Your task to perform on an android device: Play the last video I watched on Youtube Image 0: 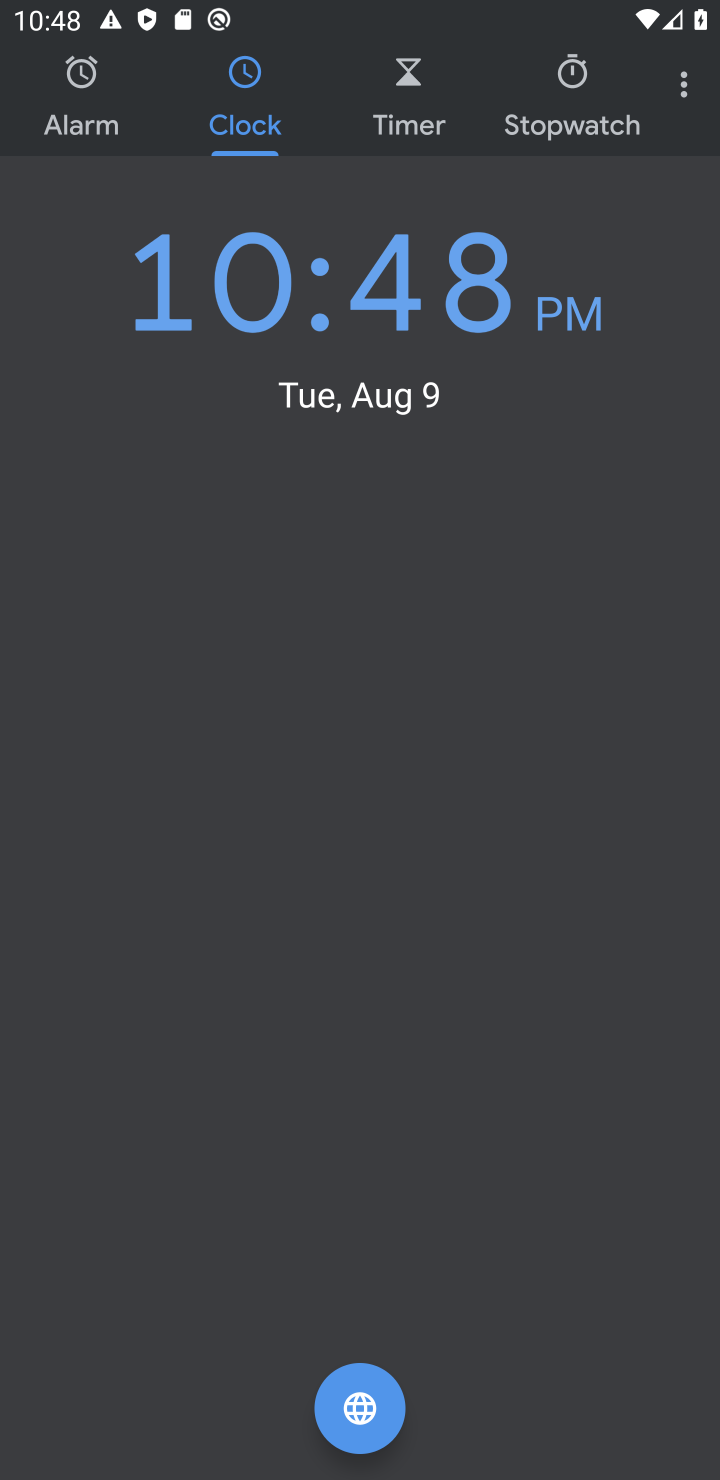
Step 0: press home button
Your task to perform on an android device: Play the last video I watched on Youtube Image 1: 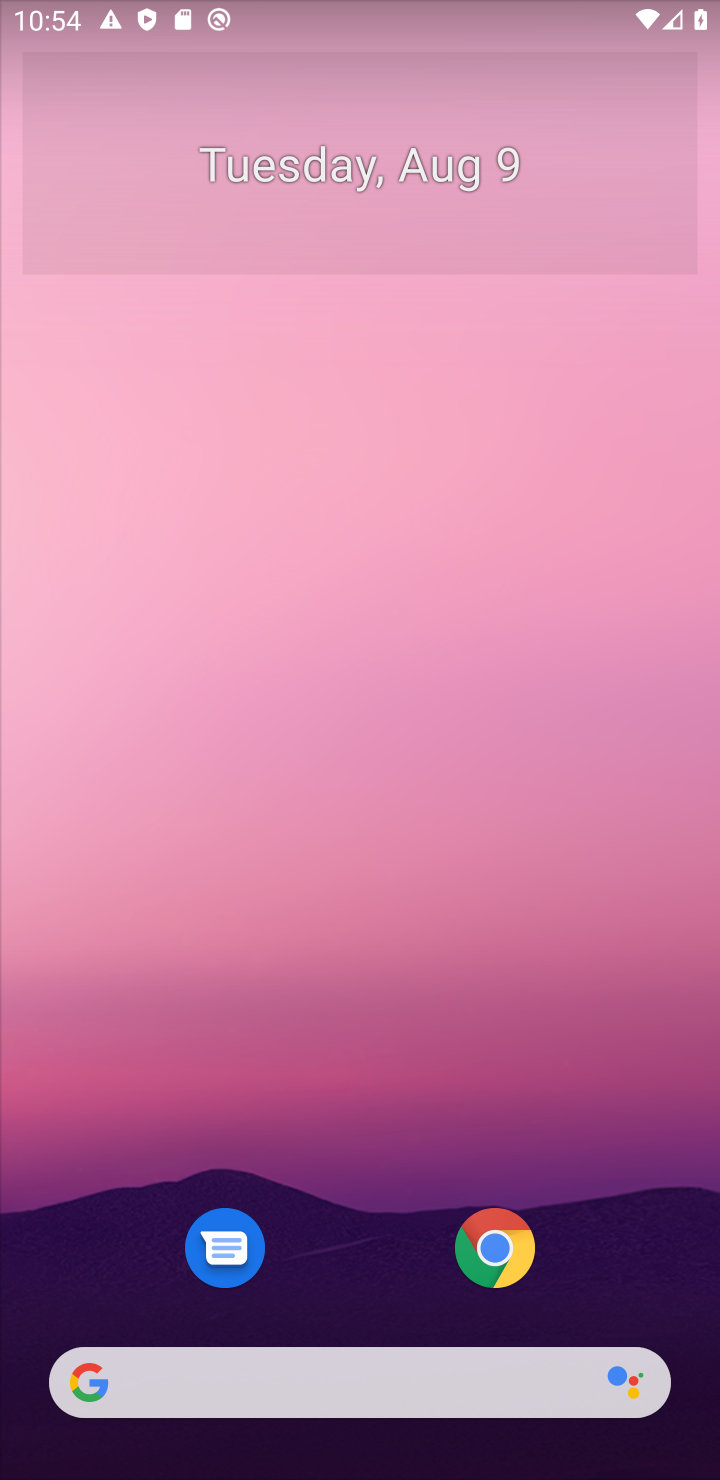
Step 1: drag from (421, 975) to (488, 16)
Your task to perform on an android device: Play the last video I watched on Youtube Image 2: 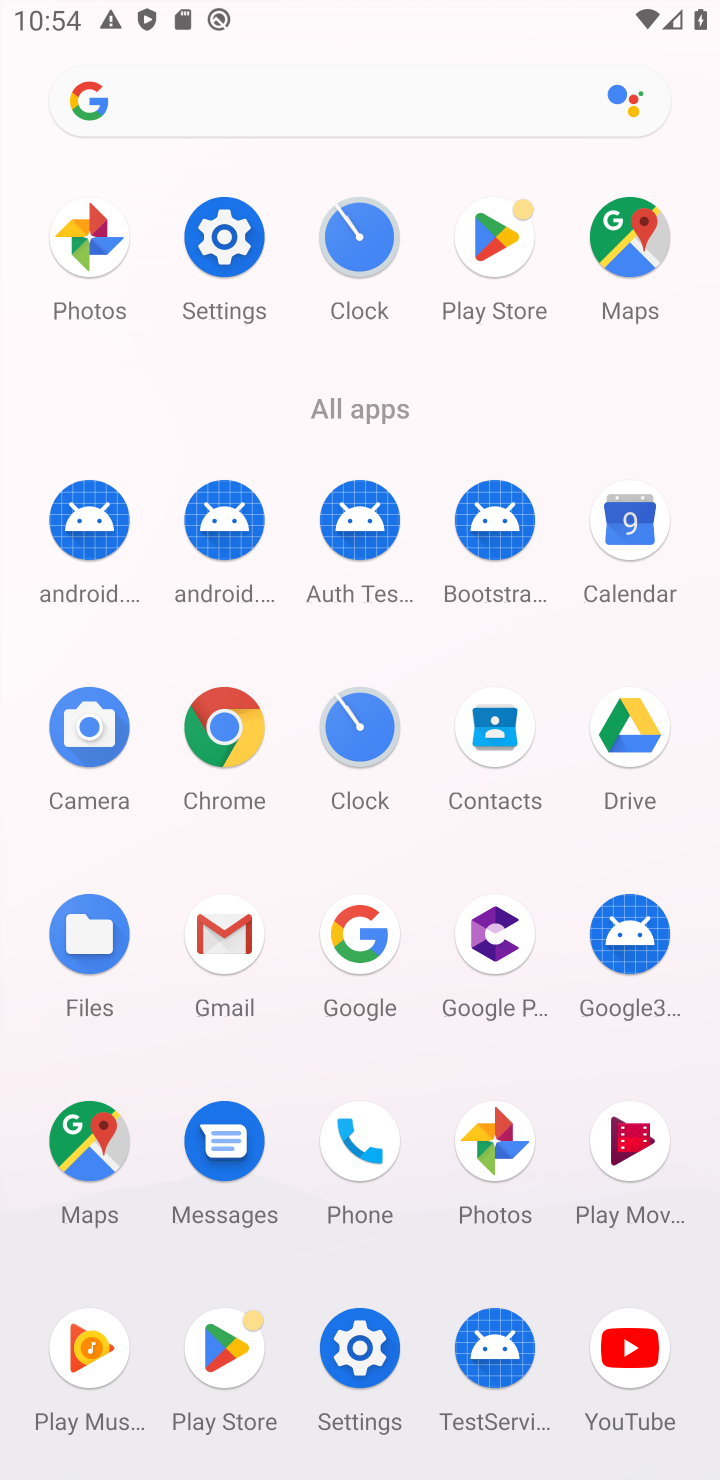
Step 2: click (618, 1362)
Your task to perform on an android device: Play the last video I watched on Youtube Image 3: 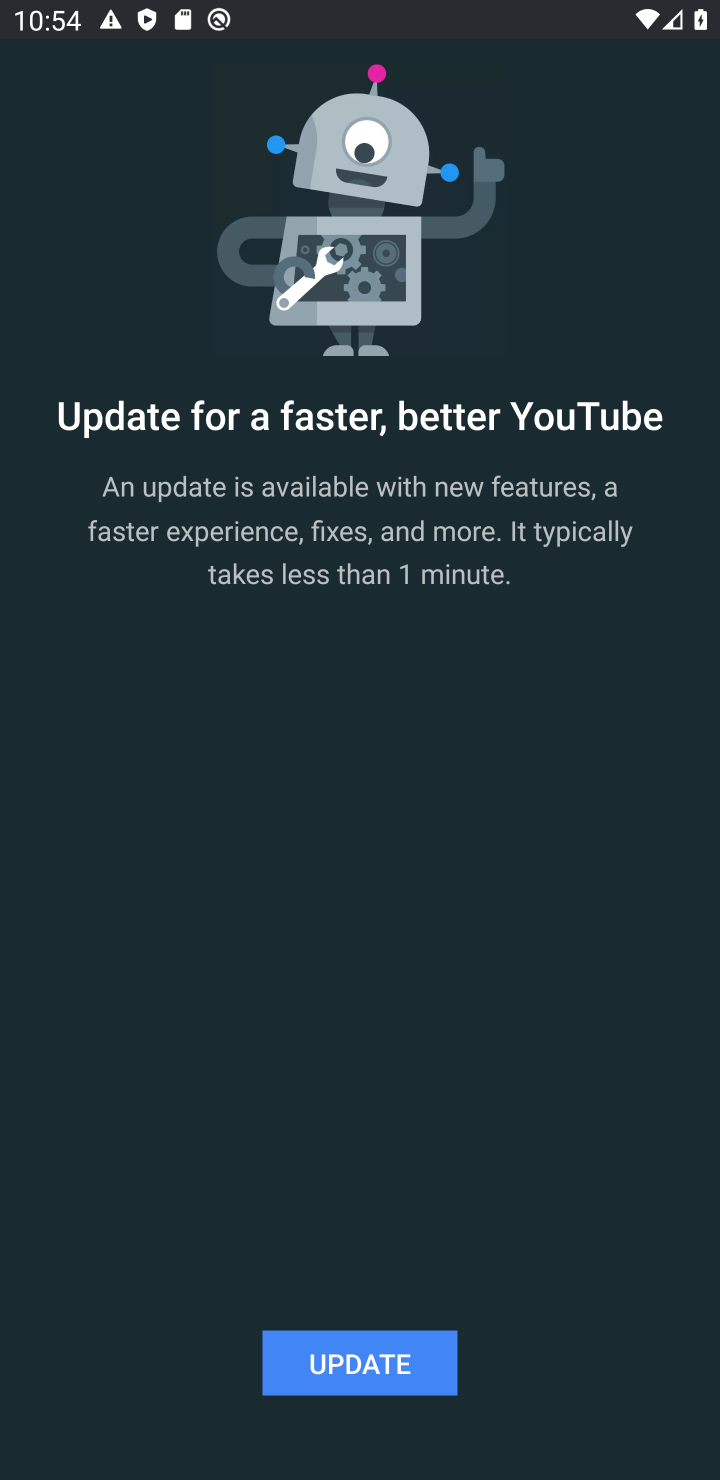
Step 3: task complete